Your task to perform on an android device: check google app version Image 0: 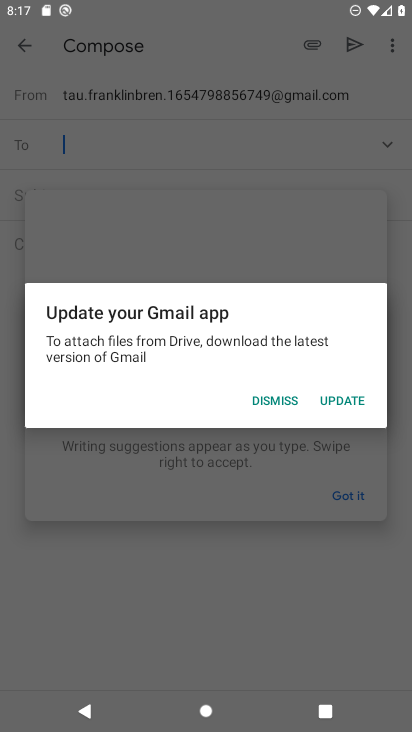
Step 0: press home button
Your task to perform on an android device: check google app version Image 1: 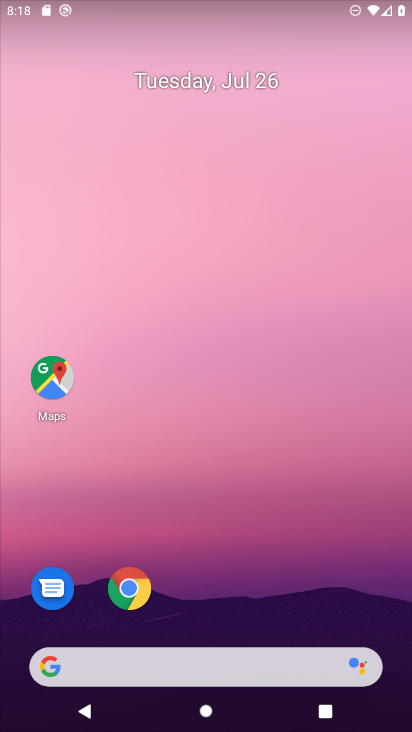
Step 1: drag from (223, 613) to (215, 8)
Your task to perform on an android device: check google app version Image 2: 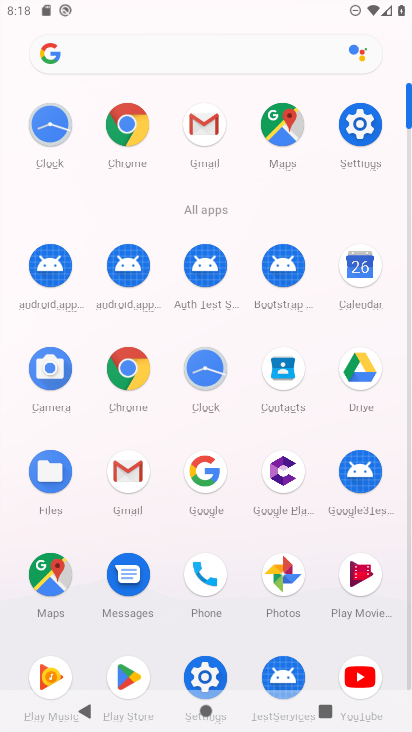
Step 2: click (208, 466)
Your task to perform on an android device: check google app version Image 3: 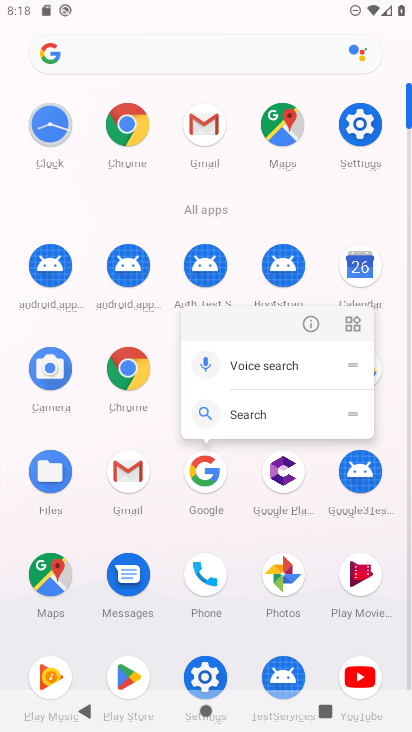
Step 3: click (312, 318)
Your task to perform on an android device: check google app version Image 4: 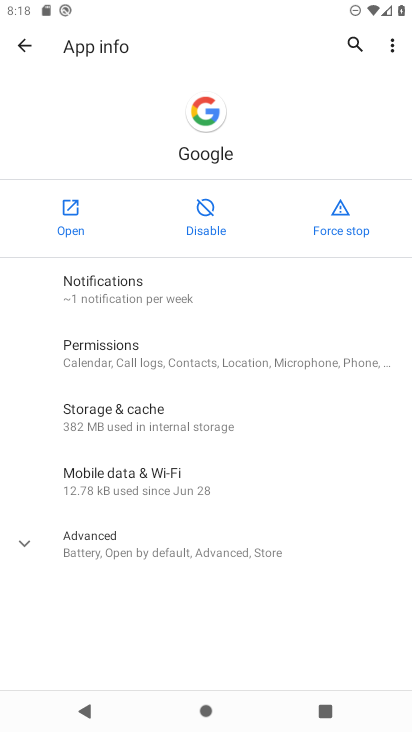
Step 4: click (21, 547)
Your task to perform on an android device: check google app version Image 5: 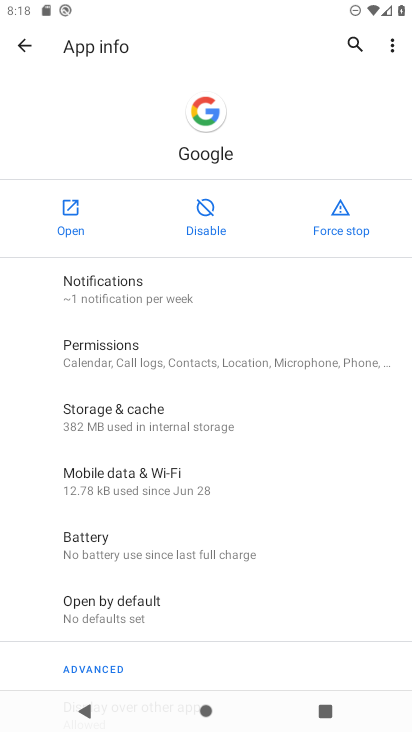
Step 5: task complete